Your task to perform on an android device: Open the Play Movies app and select the watchlist tab. Image 0: 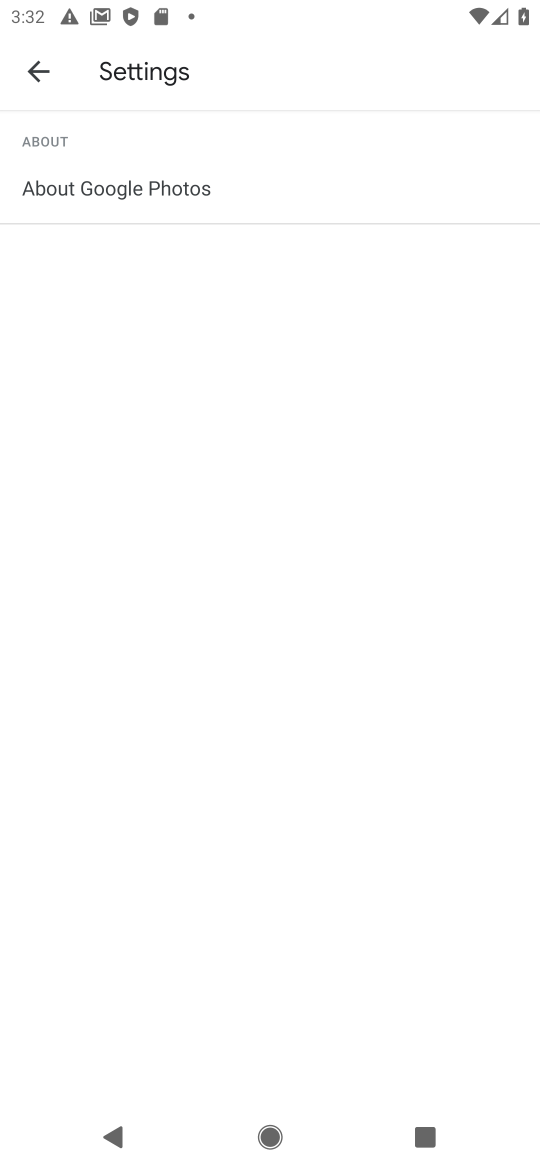
Step 0: click (33, 84)
Your task to perform on an android device: Open the Play Movies app and select the watchlist tab. Image 1: 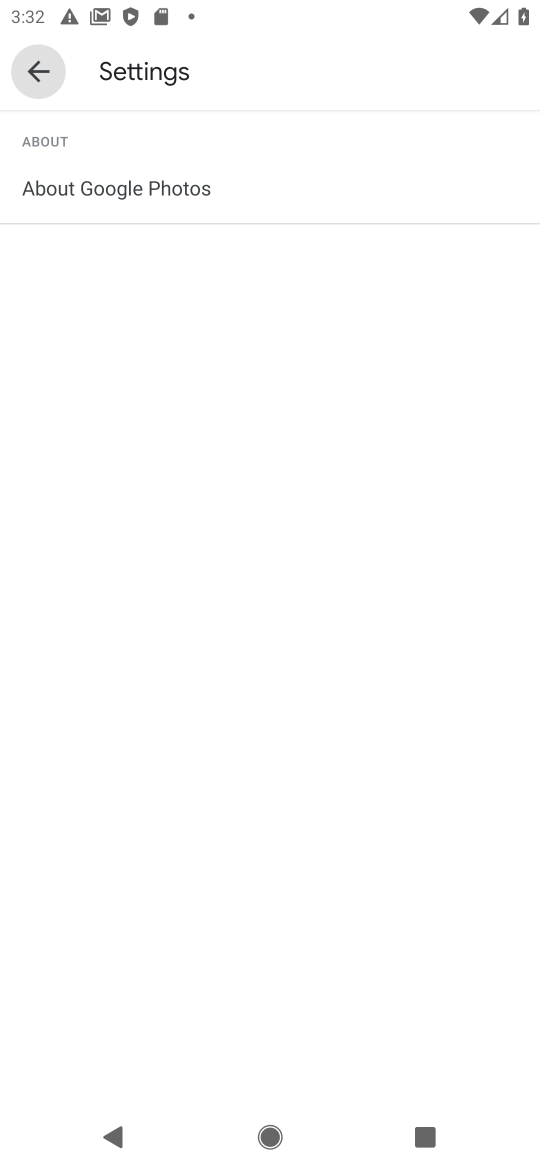
Step 1: click (49, 85)
Your task to perform on an android device: Open the Play Movies app and select the watchlist tab. Image 2: 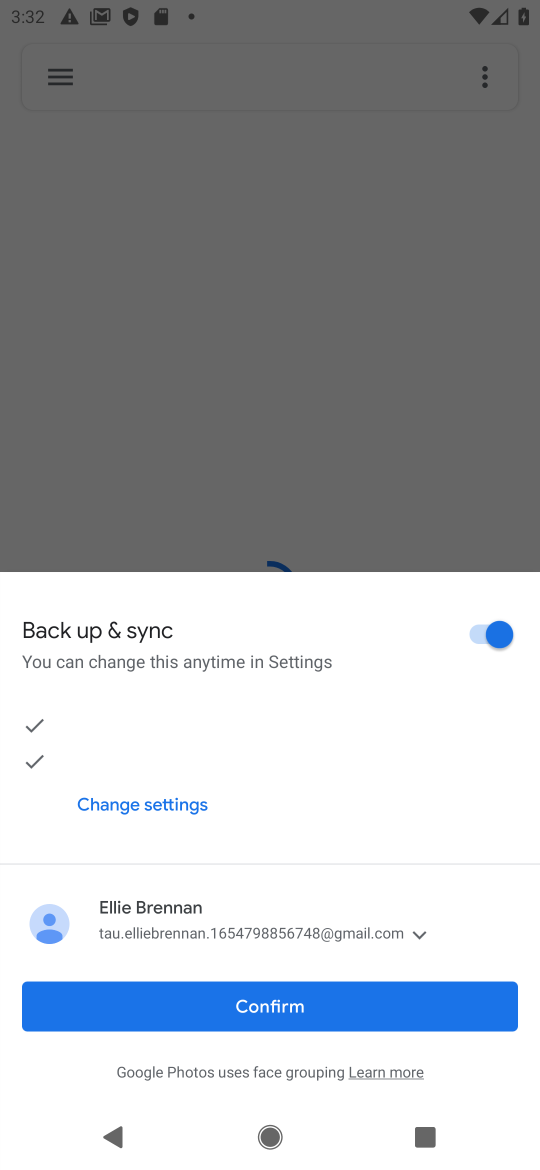
Step 2: press back button
Your task to perform on an android device: Open the Play Movies app and select the watchlist tab. Image 3: 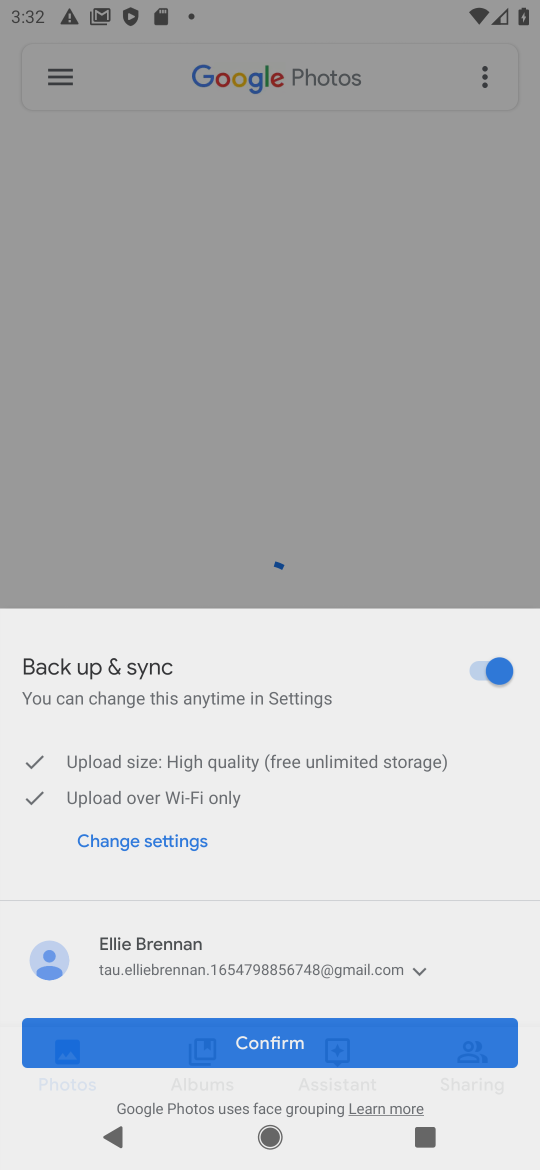
Step 3: press back button
Your task to perform on an android device: Open the Play Movies app and select the watchlist tab. Image 4: 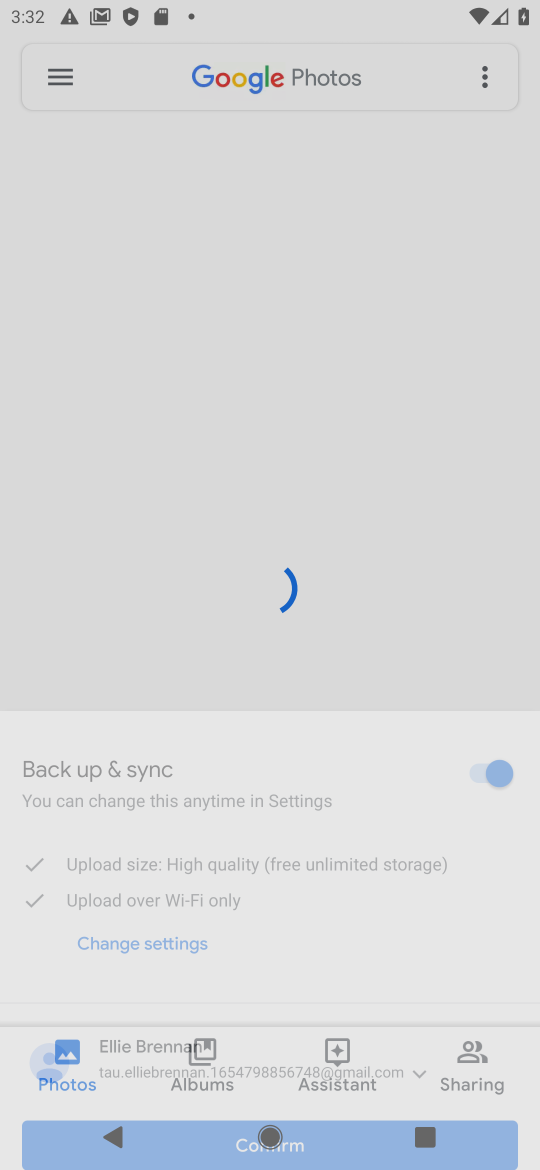
Step 4: press home button
Your task to perform on an android device: Open the Play Movies app and select the watchlist tab. Image 5: 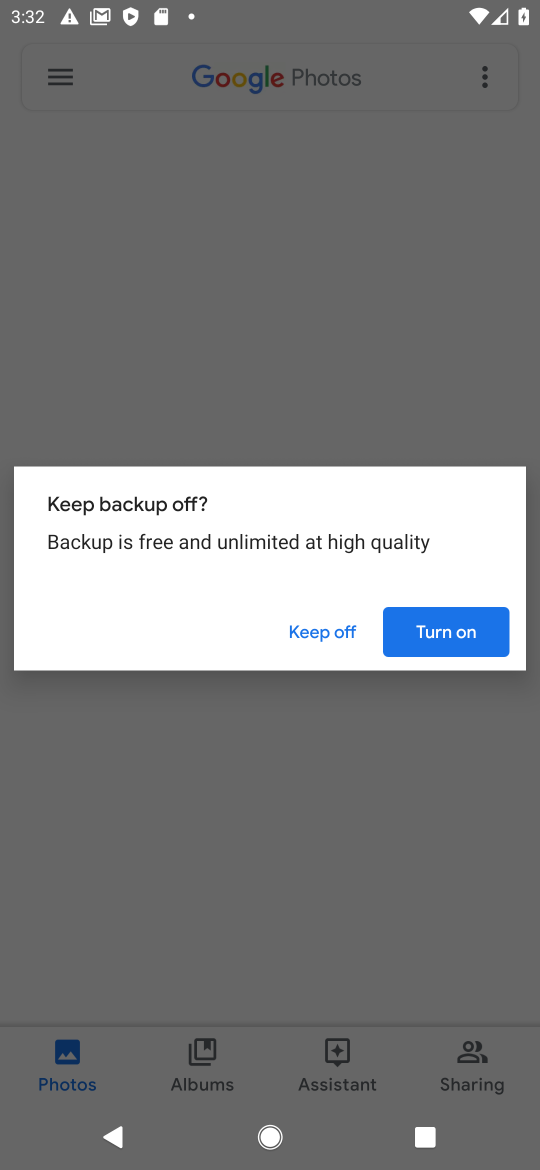
Step 5: drag from (428, 389) to (264, 535)
Your task to perform on an android device: Open the Play Movies app and select the watchlist tab. Image 6: 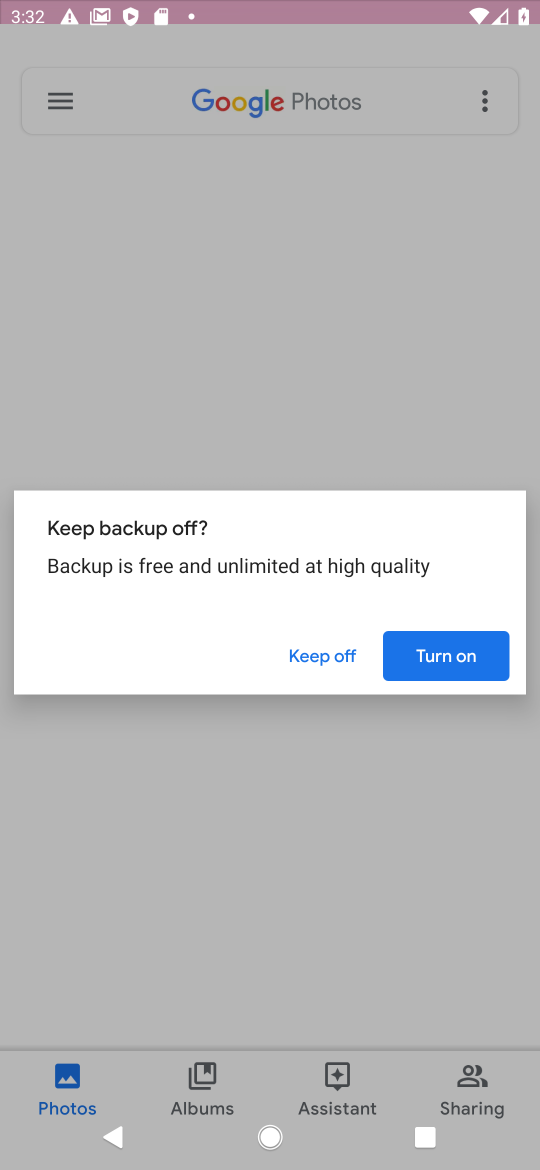
Step 6: click (264, 535)
Your task to perform on an android device: Open the Play Movies app and select the watchlist tab. Image 7: 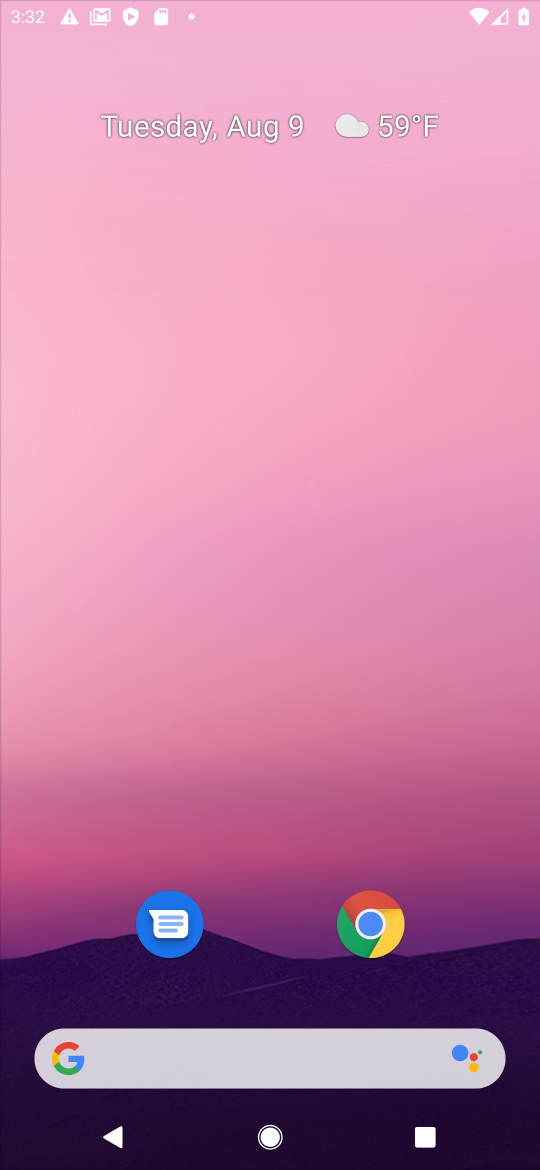
Step 7: click (270, 532)
Your task to perform on an android device: Open the Play Movies app and select the watchlist tab. Image 8: 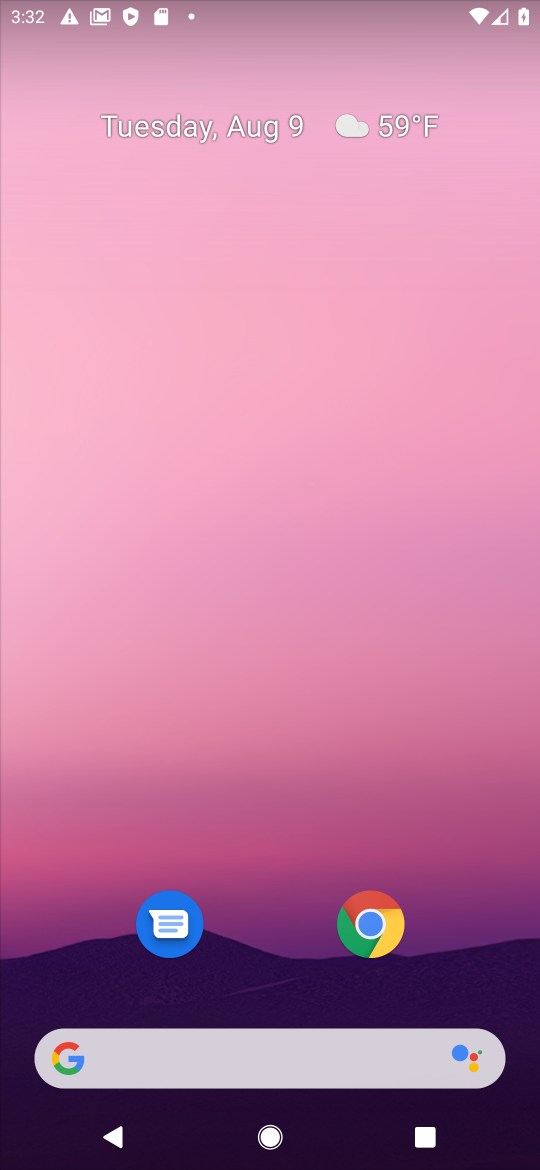
Step 8: drag from (301, 788) to (301, 318)
Your task to perform on an android device: Open the Play Movies app and select the watchlist tab. Image 9: 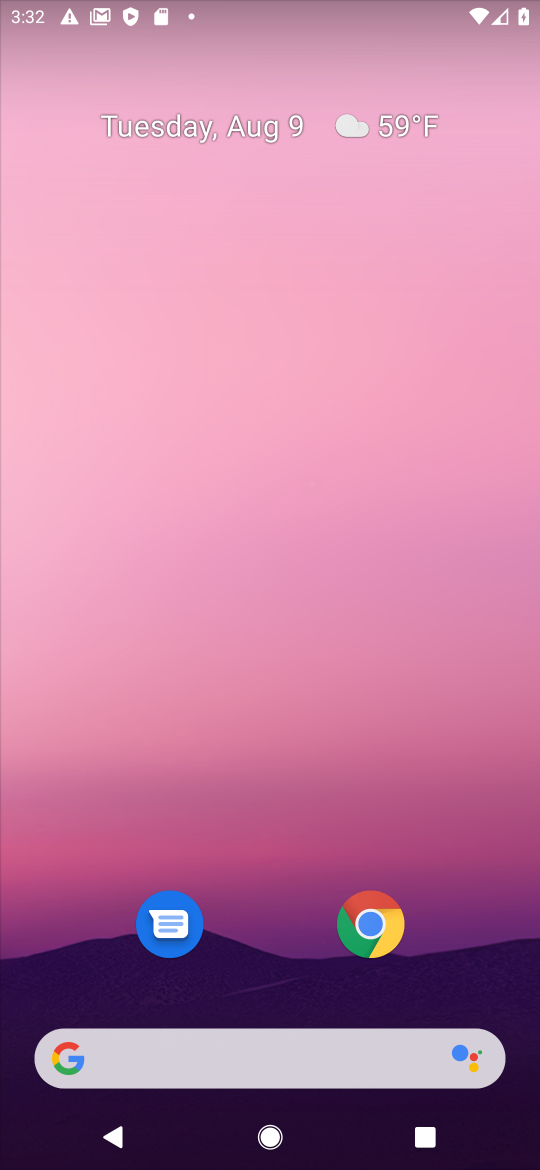
Step 9: drag from (396, 321) to (312, 129)
Your task to perform on an android device: Open the Play Movies app and select the watchlist tab. Image 10: 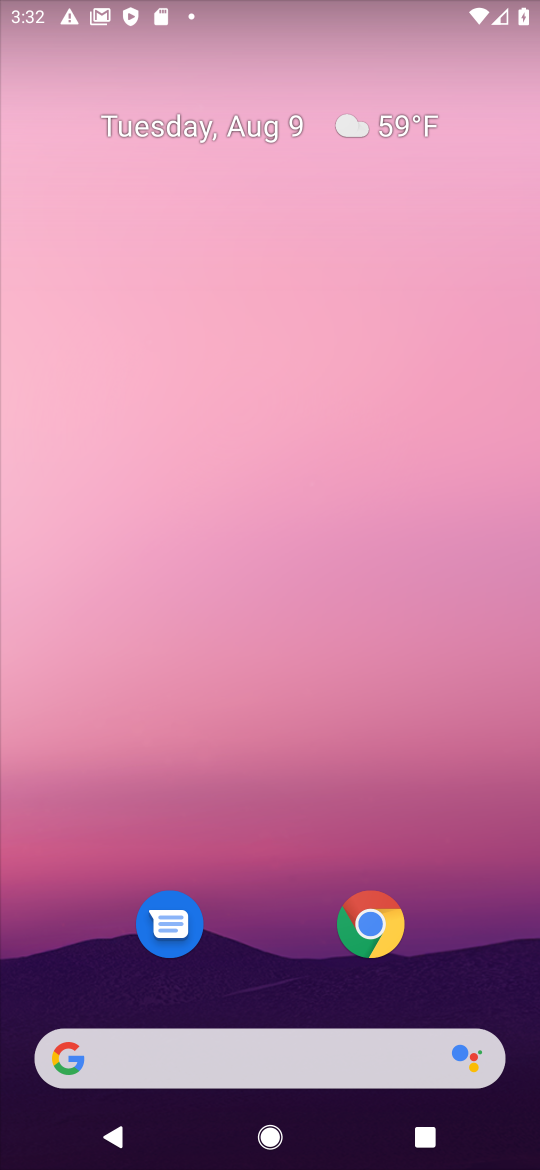
Step 10: drag from (296, 888) to (329, 290)
Your task to perform on an android device: Open the Play Movies app and select the watchlist tab. Image 11: 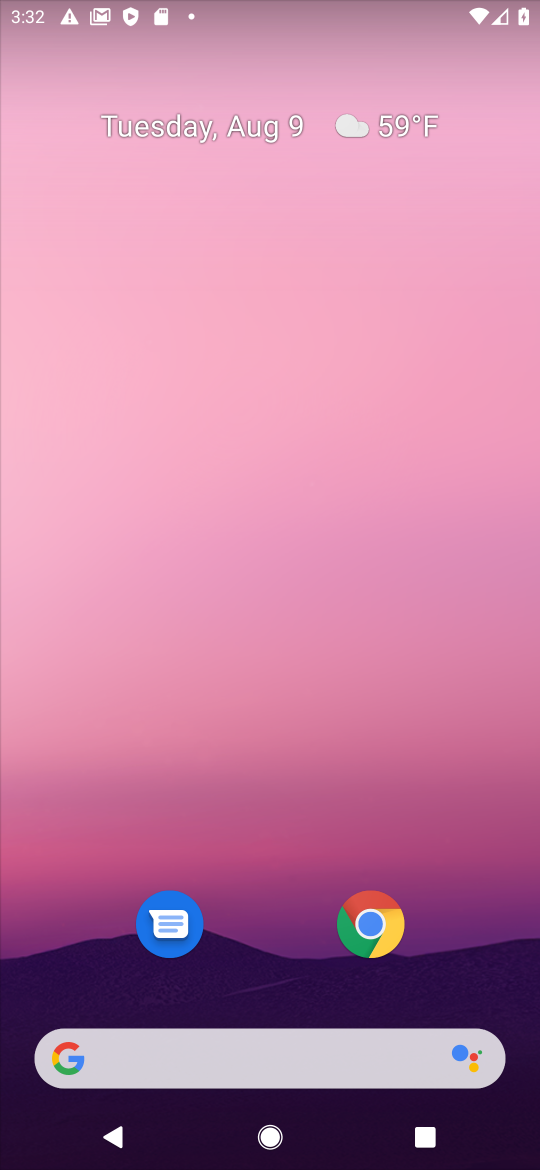
Step 11: drag from (344, 601) to (339, 110)
Your task to perform on an android device: Open the Play Movies app and select the watchlist tab. Image 12: 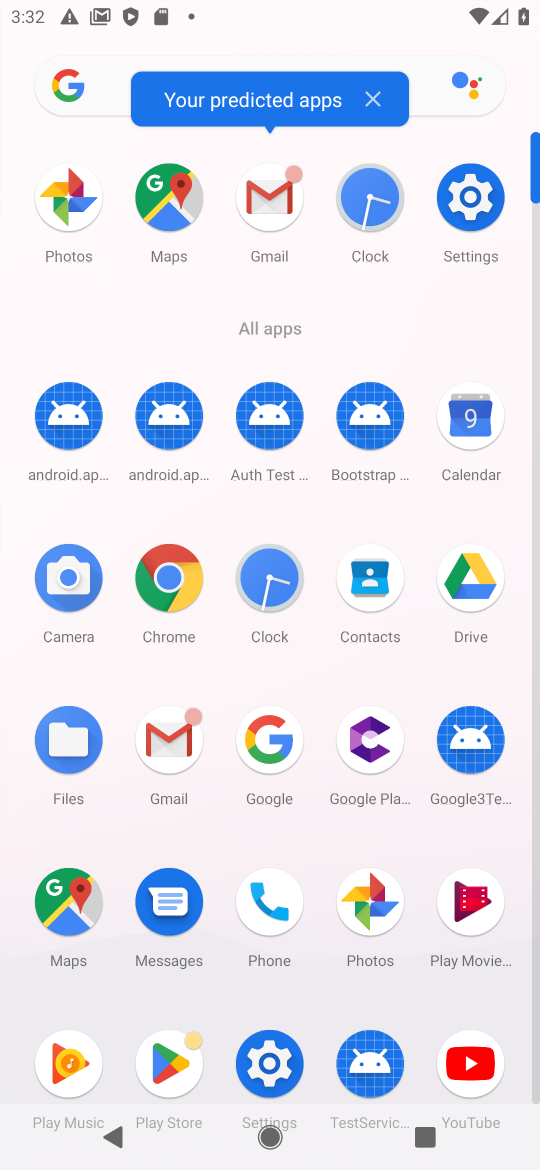
Step 12: click (479, 888)
Your task to perform on an android device: Open the Play Movies app and select the watchlist tab. Image 13: 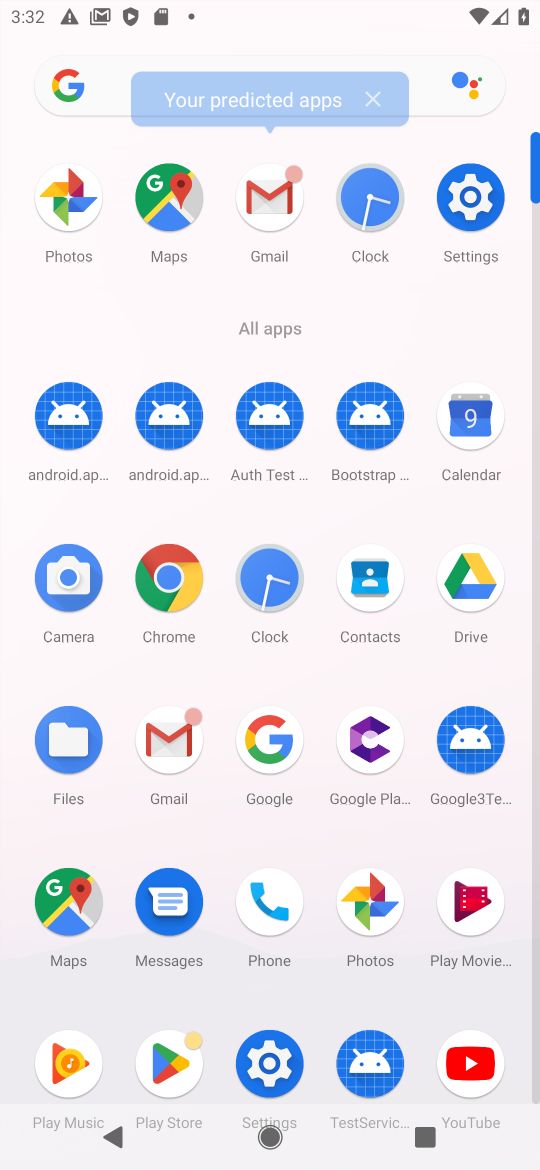
Step 13: click (479, 888)
Your task to perform on an android device: Open the Play Movies app and select the watchlist tab. Image 14: 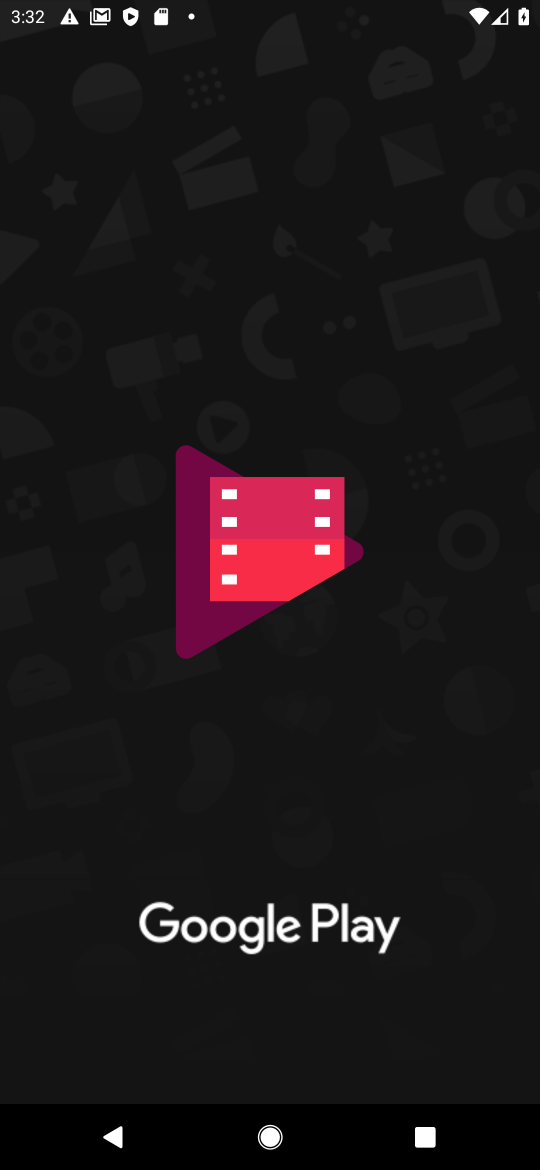
Step 14: drag from (379, 707) to (356, 545)
Your task to perform on an android device: Open the Play Movies app and select the watchlist tab. Image 15: 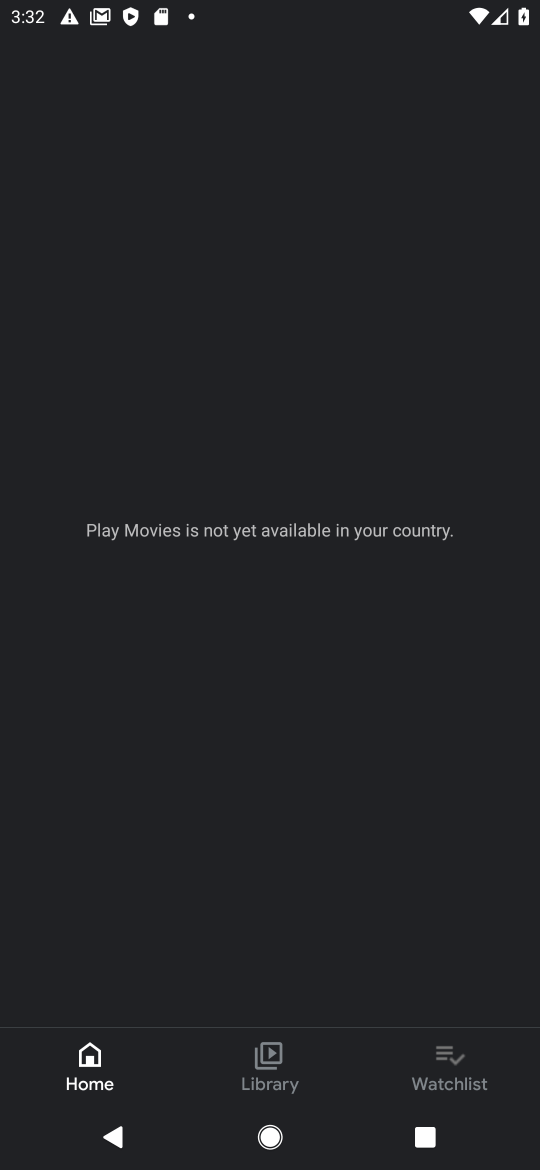
Step 15: click (447, 1069)
Your task to perform on an android device: Open the Play Movies app and select the watchlist tab. Image 16: 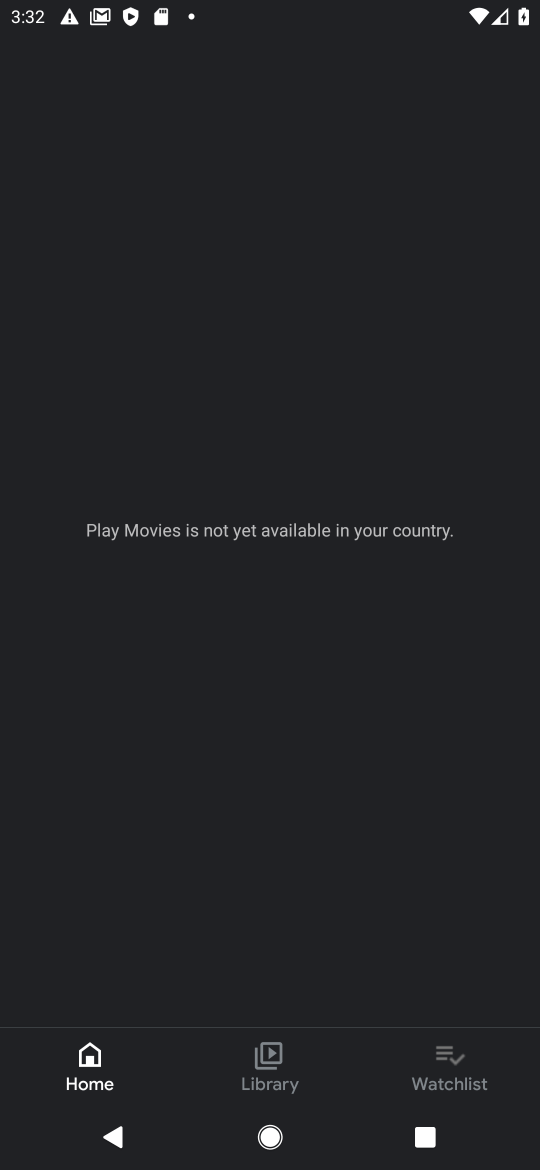
Step 16: click (447, 1069)
Your task to perform on an android device: Open the Play Movies app and select the watchlist tab. Image 17: 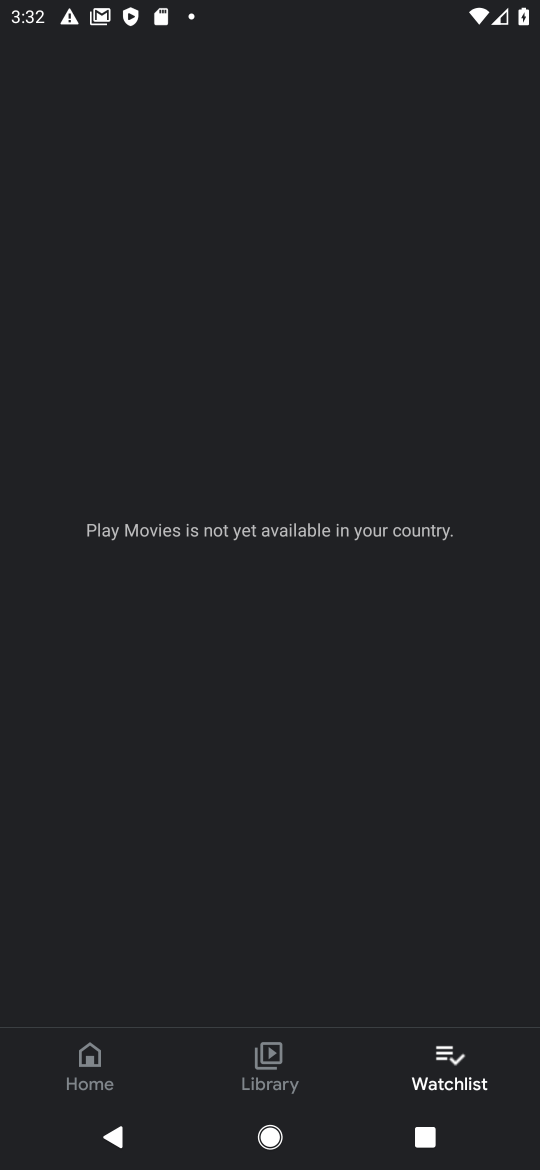
Step 17: task complete